Your task to perform on an android device: clear all cookies in the chrome app Image 0: 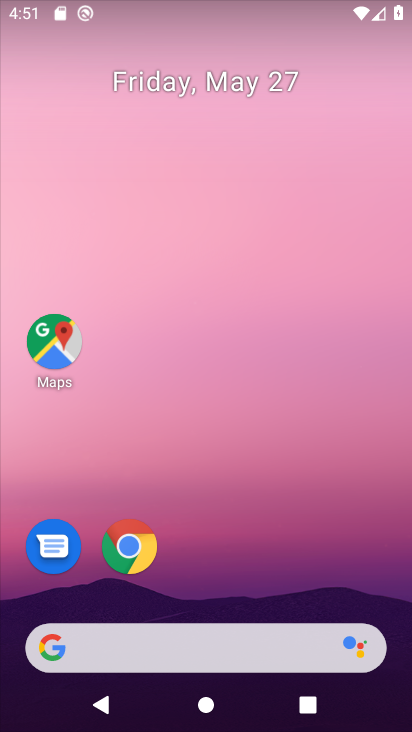
Step 0: drag from (322, 540) to (226, 14)
Your task to perform on an android device: clear all cookies in the chrome app Image 1: 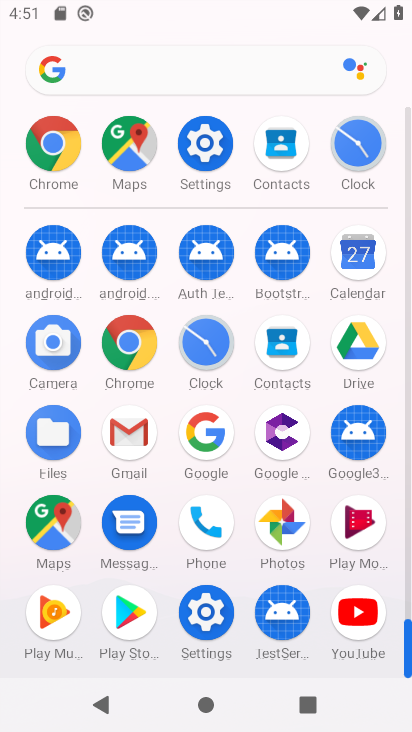
Step 1: drag from (10, 503) to (22, 179)
Your task to perform on an android device: clear all cookies in the chrome app Image 2: 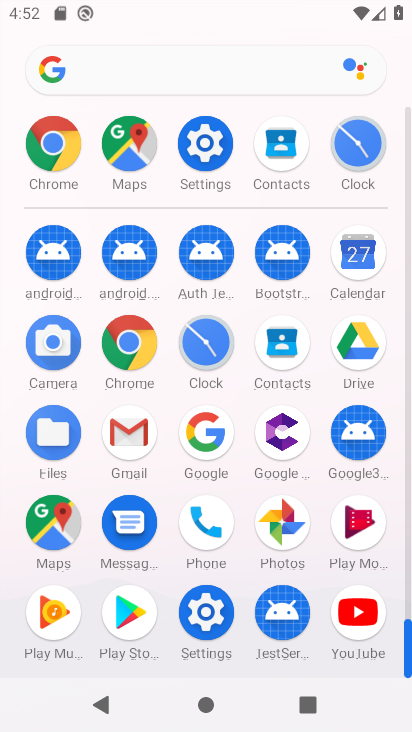
Step 2: click (121, 342)
Your task to perform on an android device: clear all cookies in the chrome app Image 3: 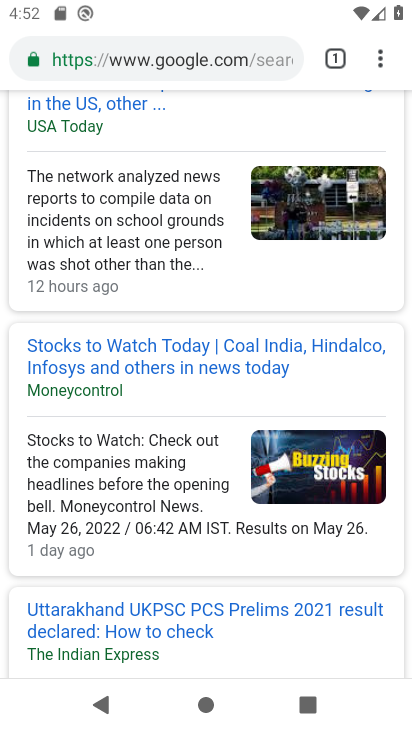
Step 3: drag from (382, 61) to (184, 563)
Your task to perform on an android device: clear all cookies in the chrome app Image 4: 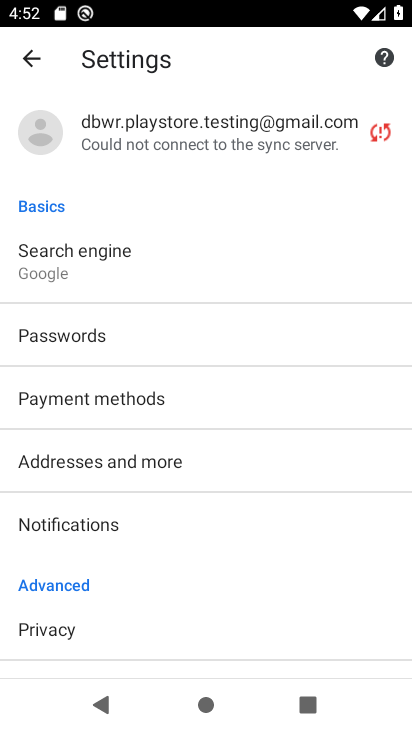
Step 4: click (83, 633)
Your task to perform on an android device: clear all cookies in the chrome app Image 5: 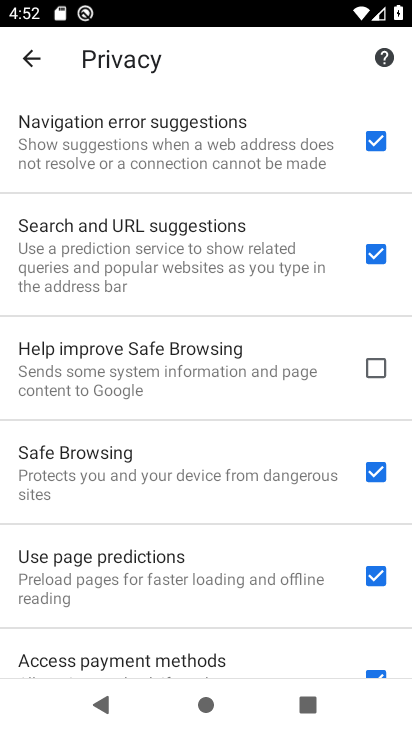
Step 5: drag from (128, 650) to (226, 188)
Your task to perform on an android device: clear all cookies in the chrome app Image 6: 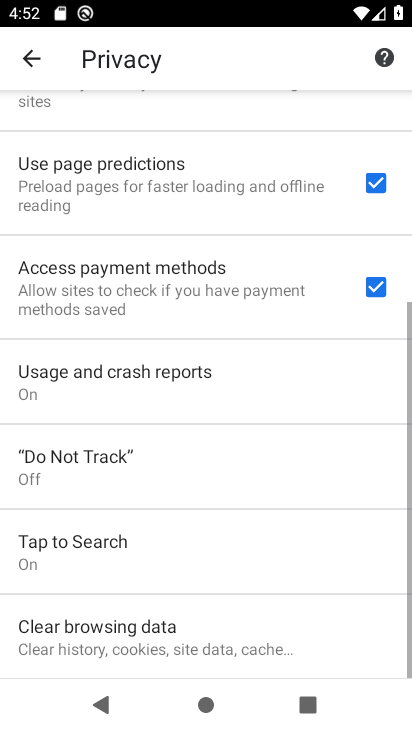
Step 6: drag from (247, 587) to (236, 179)
Your task to perform on an android device: clear all cookies in the chrome app Image 7: 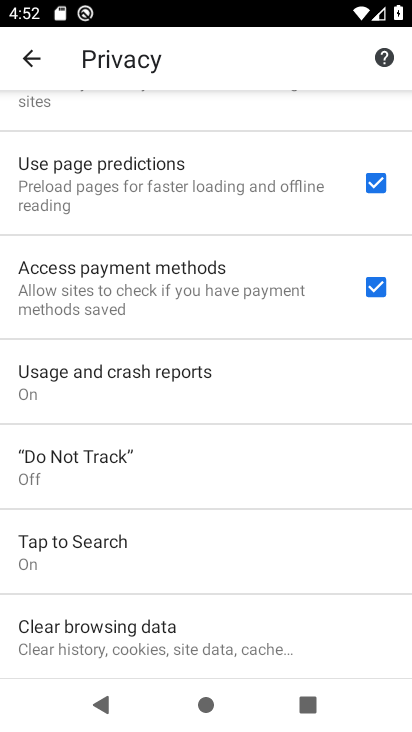
Step 7: click (164, 626)
Your task to perform on an android device: clear all cookies in the chrome app Image 8: 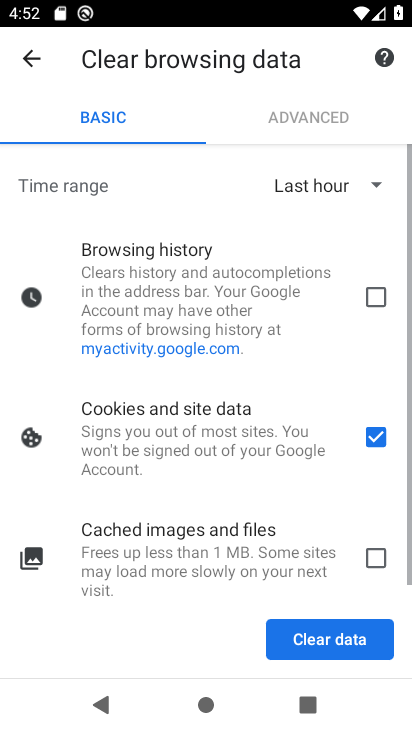
Step 8: click (337, 647)
Your task to perform on an android device: clear all cookies in the chrome app Image 9: 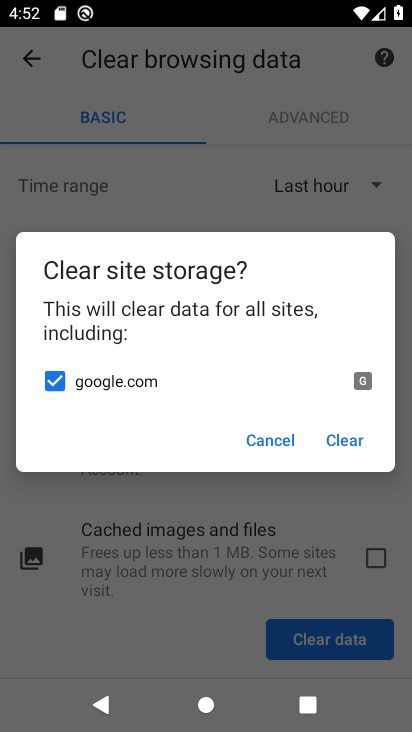
Step 9: click (337, 436)
Your task to perform on an android device: clear all cookies in the chrome app Image 10: 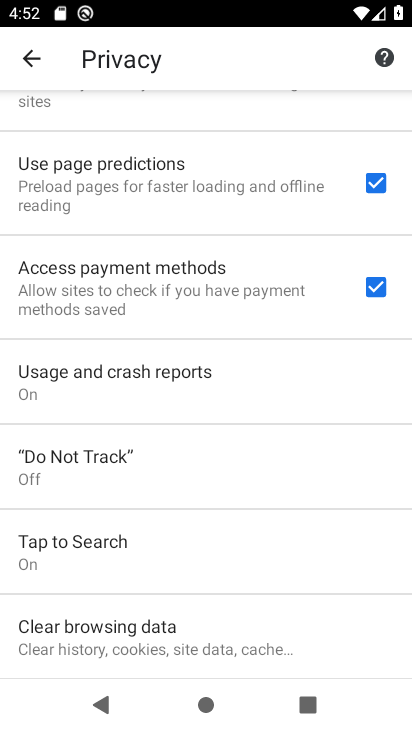
Step 10: task complete